Your task to perform on an android device: Toggle the flashlight Image 0: 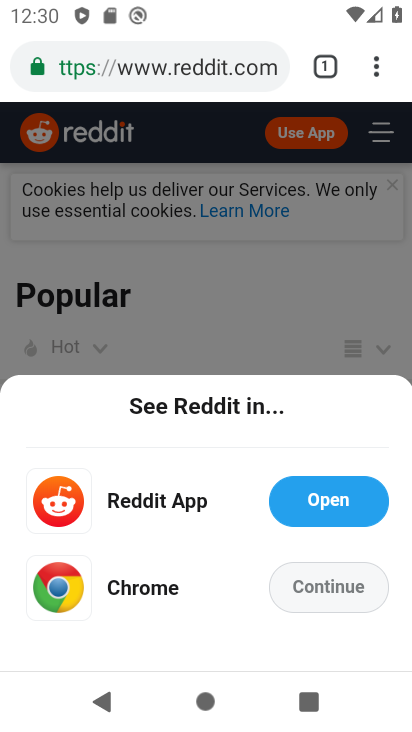
Step 0: press home button
Your task to perform on an android device: Toggle the flashlight Image 1: 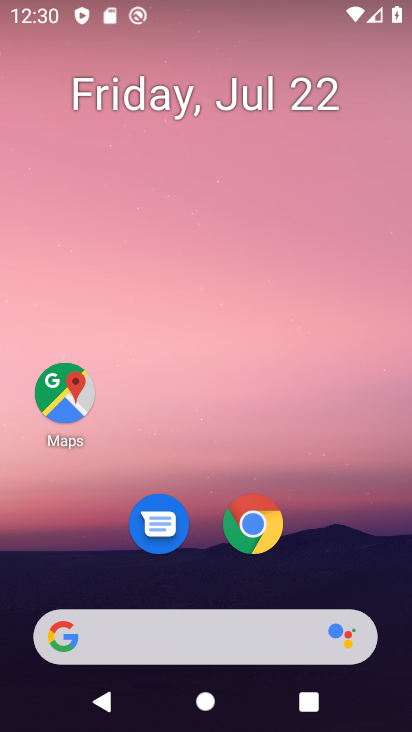
Step 1: task complete